Your task to perform on an android device: Do I have any events this weekend? Image 0: 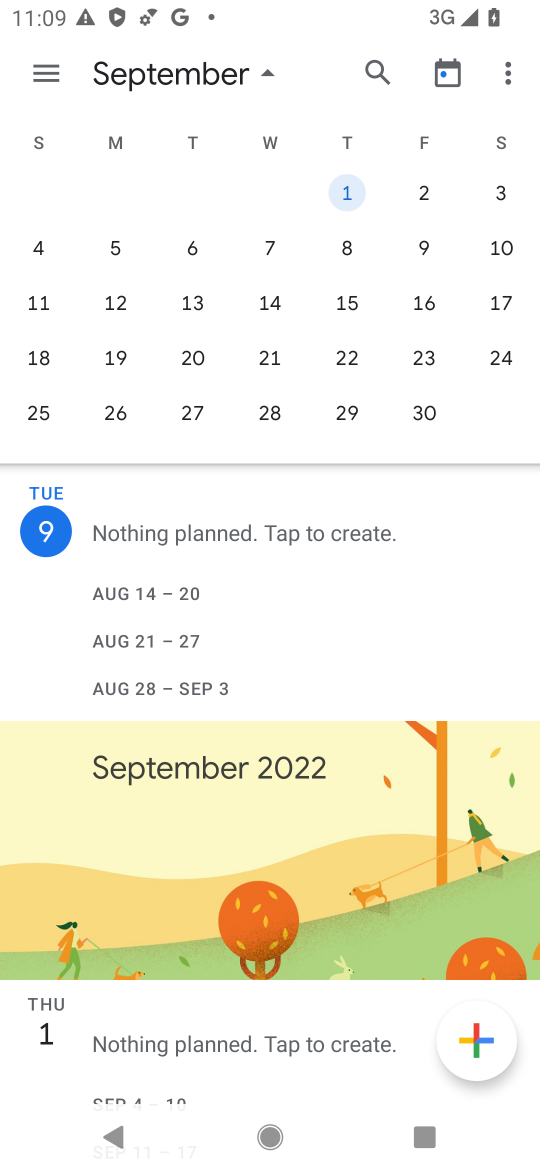
Step 0: press home button
Your task to perform on an android device: Do I have any events this weekend? Image 1: 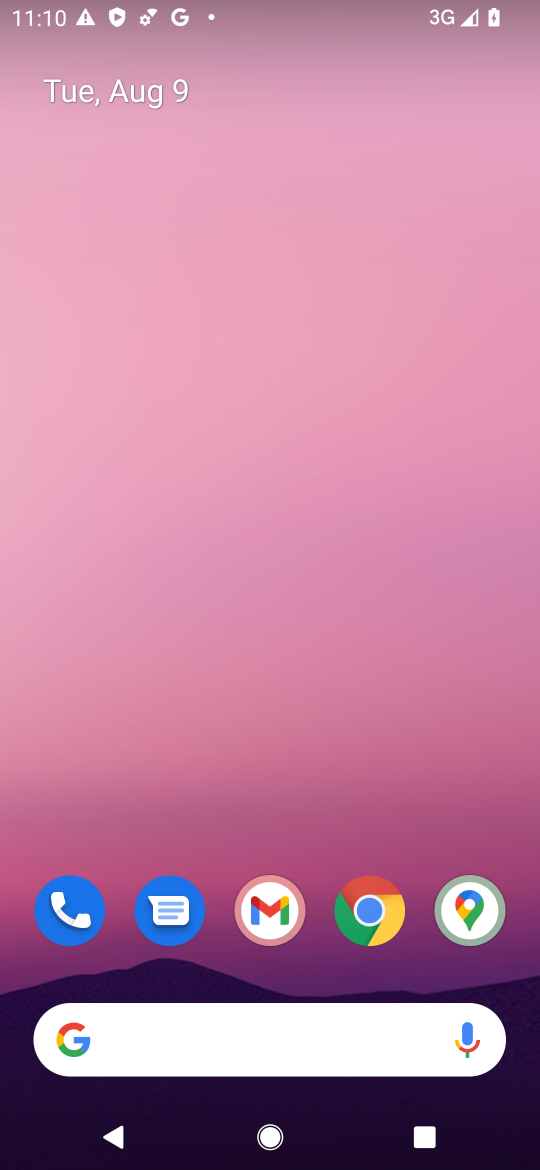
Step 1: drag from (54, 696) to (395, 173)
Your task to perform on an android device: Do I have any events this weekend? Image 2: 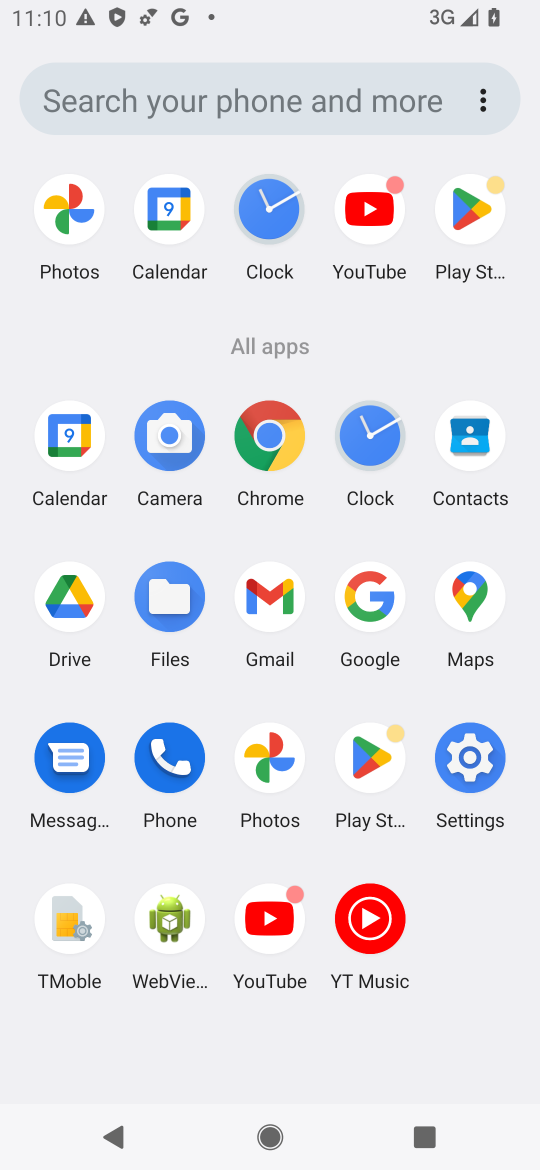
Step 2: click (159, 204)
Your task to perform on an android device: Do I have any events this weekend? Image 3: 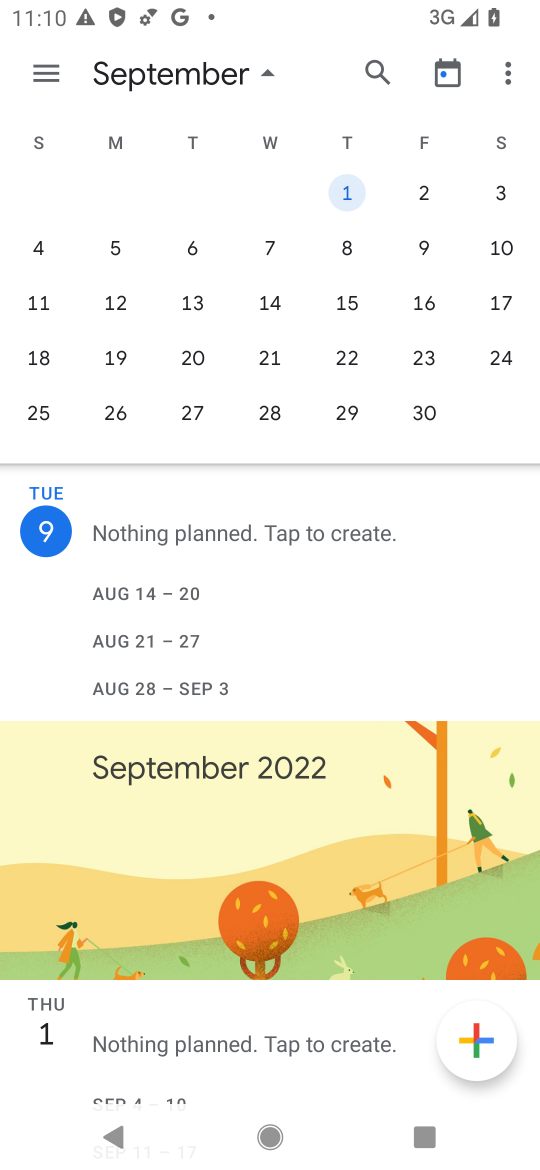
Step 3: click (501, 304)
Your task to perform on an android device: Do I have any events this weekend? Image 4: 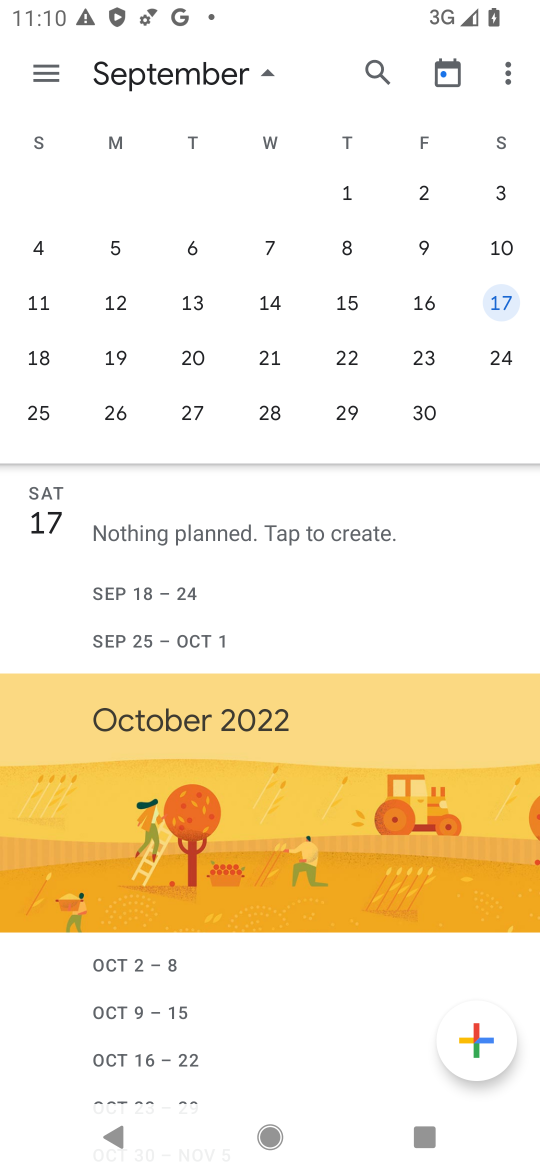
Step 4: click (342, 246)
Your task to perform on an android device: Do I have any events this weekend? Image 5: 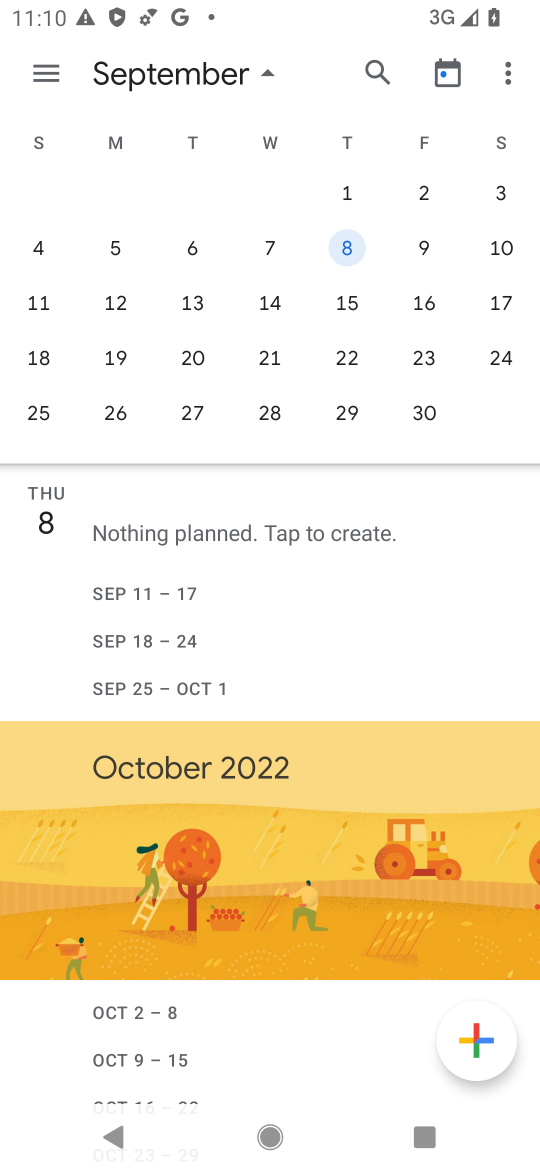
Step 5: click (353, 309)
Your task to perform on an android device: Do I have any events this weekend? Image 6: 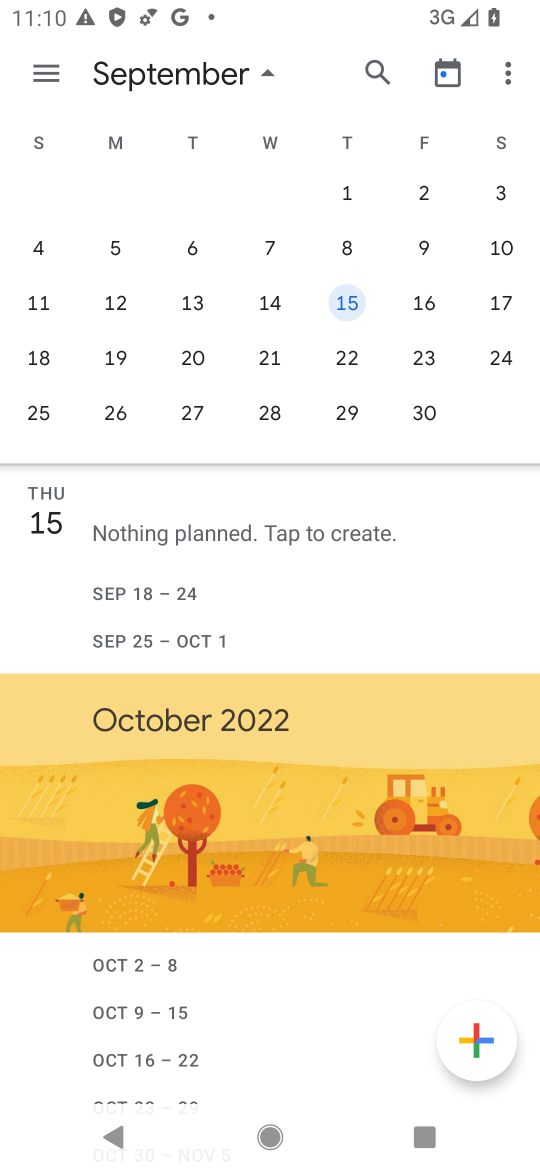
Step 6: task complete